Your task to perform on an android device: Open Youtube and go to the subscriptions tab Image 0: 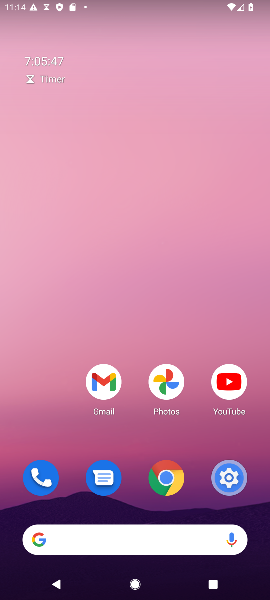
Step 0: click (230, 376)
Your task to perform on an android device: Open Youtube and go to the subscriptions tab Image 1: 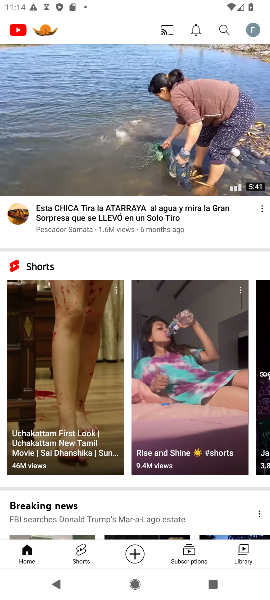
Step 1: click (190, 558)
Your task to perform on an android device: Open Youtube and go to the subscriptions tab Image 2: 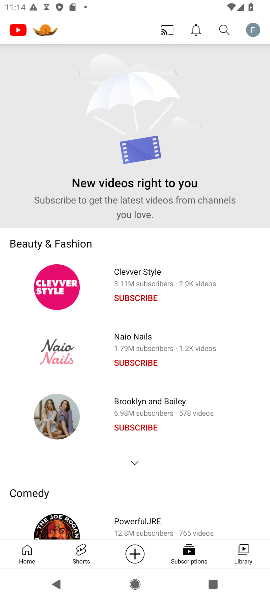
Step 2: task complete